Your task to perform on an android device: Open Google Image 0: 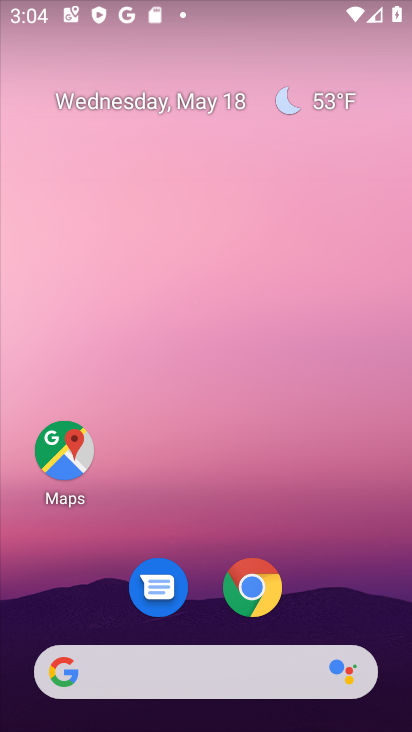
Step 0: drag from (245, 677) to (299, 91)
Your task to perform on an android device: Open Google Image 1: 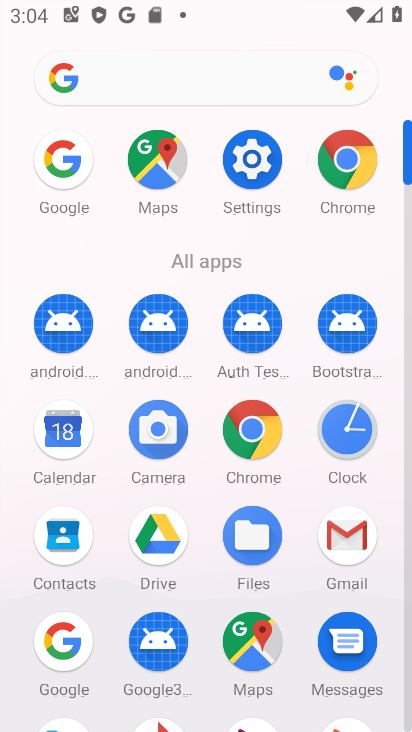
Step 1: click (70, 640)
Your task to perform on an android device: Open Google Image 2: 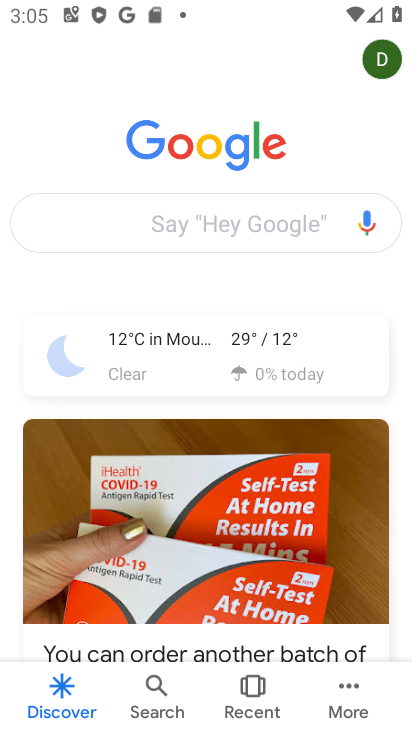
Step 2: task complete